Your task to perform on an android device: add a contact in the contacts app Image 0: 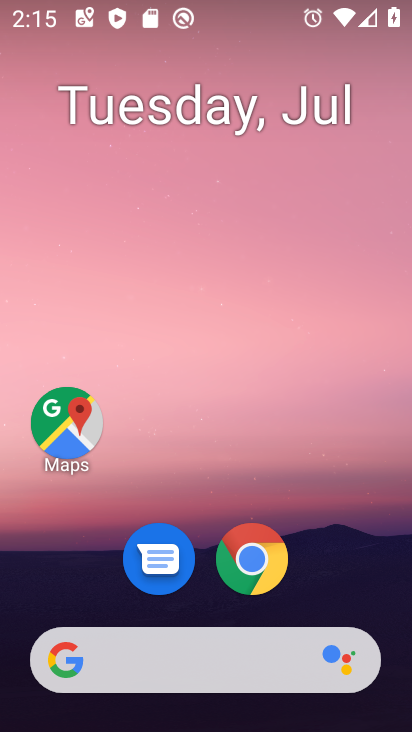
Step 0: press home button
Your task to perform on an android device: add a contact in the contacts app Image 1: 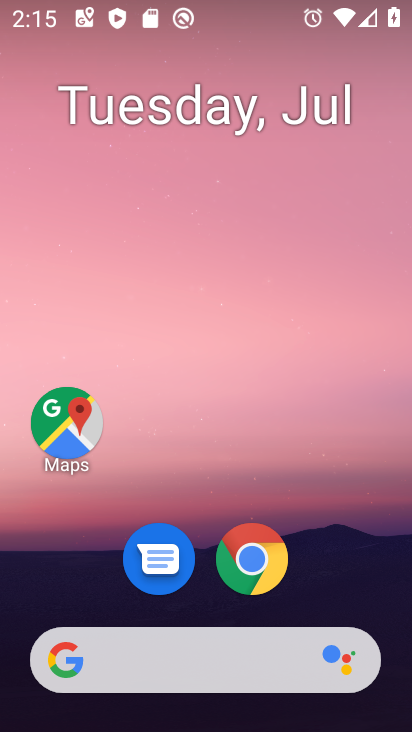
Step 1: drag from (338, 578) to (334, 176)
Your task to perform on an android device: add a contact in the contacts app Image 2: 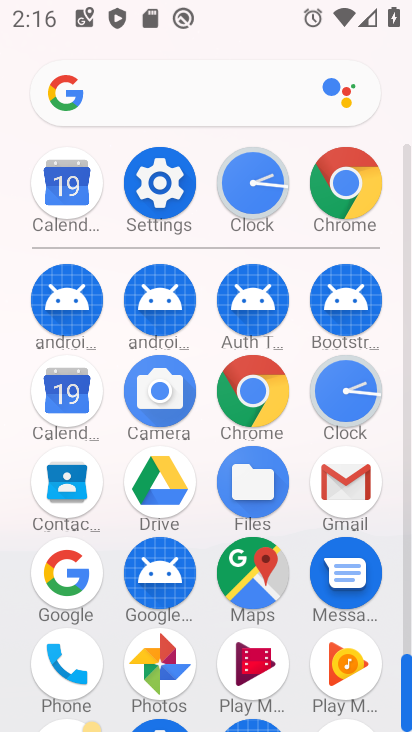
Step 2: click (68, 484)
Your task to perform on an android device: add a contact in the contacts app Image 3: 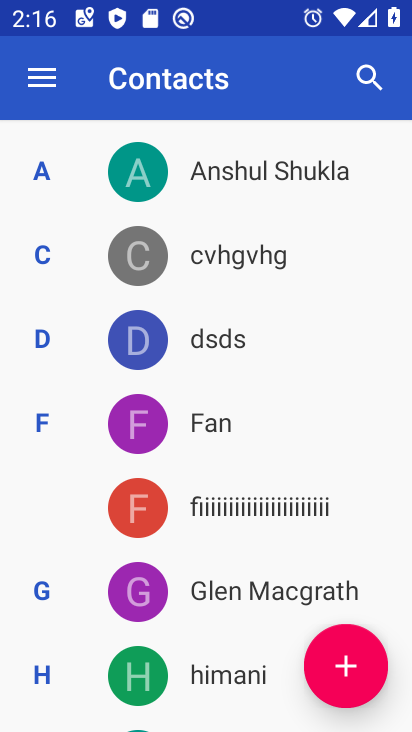
Step 3: click (343, 654)
Your task to perform on an android device: add a contact in the contacts app Image 4: 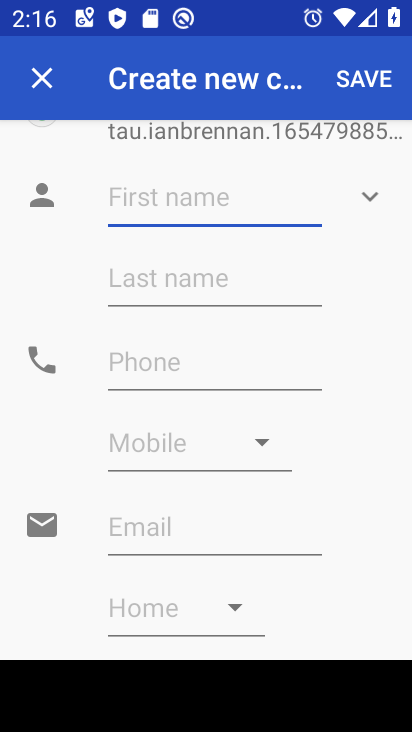
Step 4: type "mr"
Your task to perform on an android device: add a contact in the contacts app Image 5: 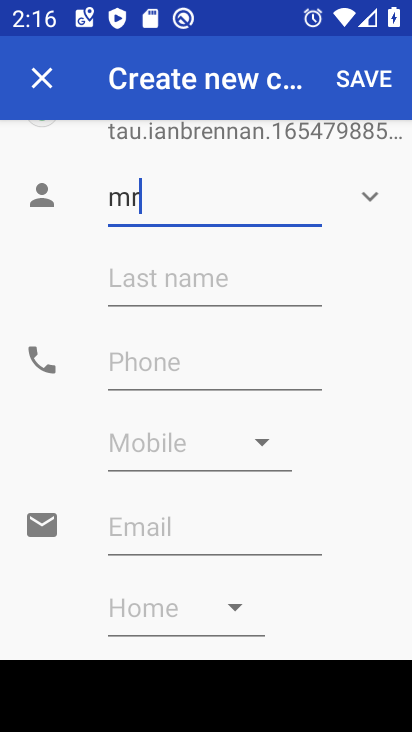
Step 5: click (142, 373)
Your task to perform on an android device: add a contact in the contacts app Image 6: 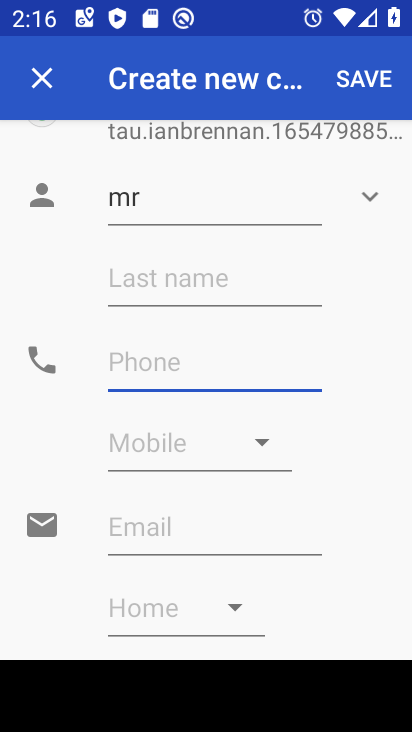
Step 6: type "1234567890"
Your task to perform on an android device: add a contact in the contacts app Image 7: 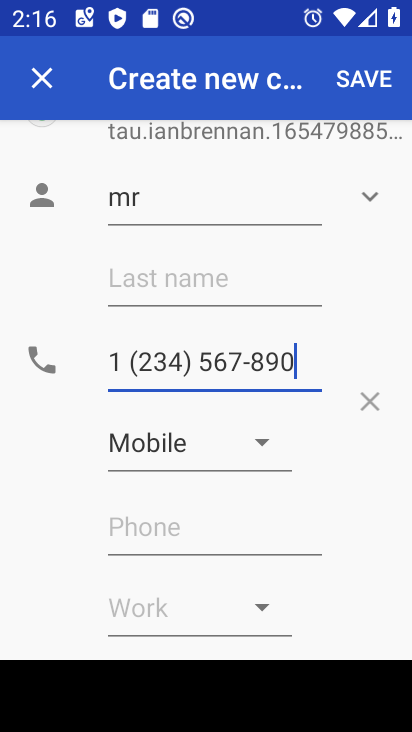
Step 7: click (356, 76)
Your task to perform on an android device: add a contact in the contacts app Image 8: 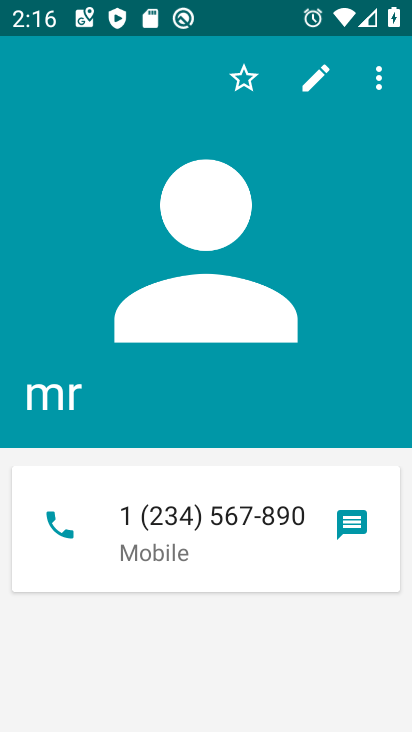
Step 8: task complete